Your task to perform on an android device: Show me the alarms in the clock app Image 0: 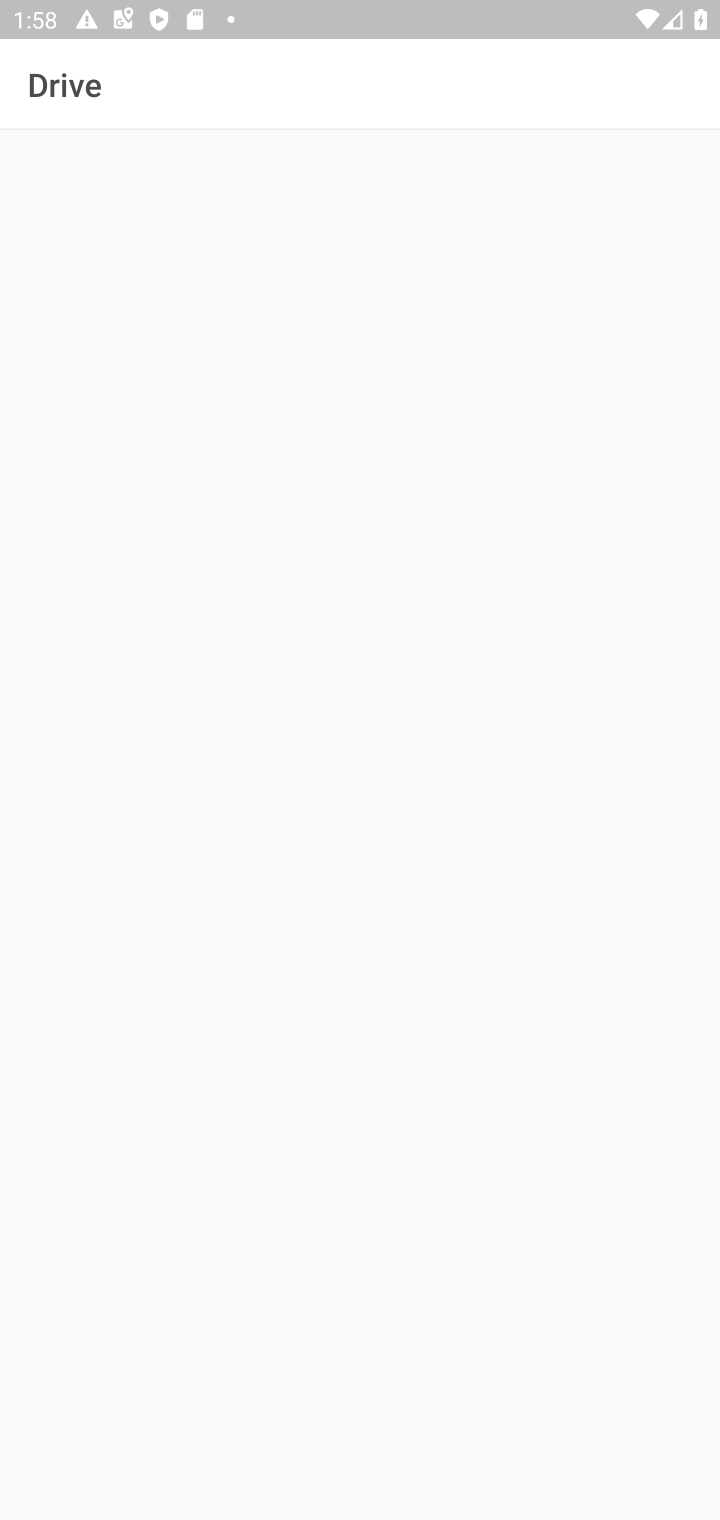
Step 0: press home button
Your task to perform on an android device: Show me the alarms in the clock app Image 1: 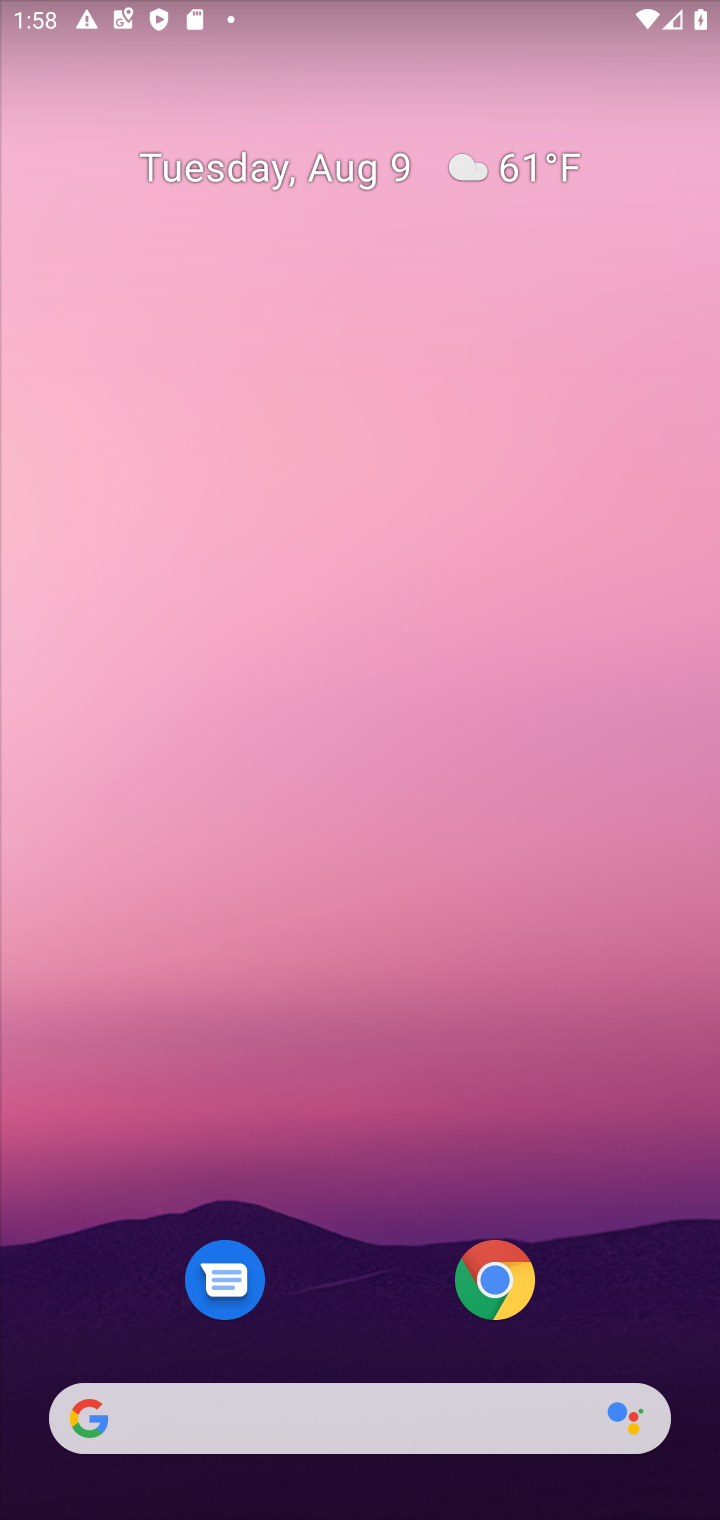
Step 1: drag from (333, 1388) to (526, 252)
Your task to perform on an android device: Show me the alarms in the clock app Image 2: 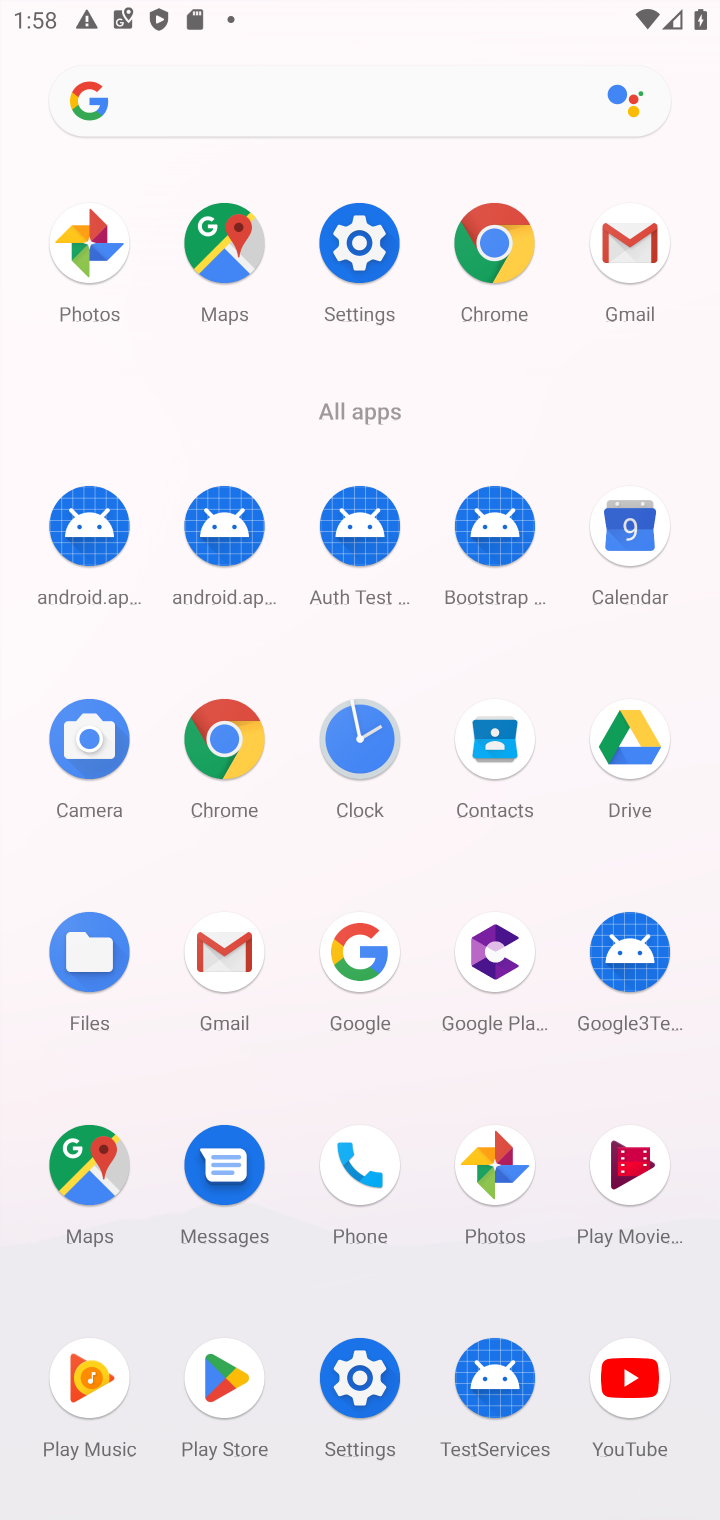
Step 2: click (358, 755)
Your task to perform on an android device: Show me the alarms in the clock app Image 3: 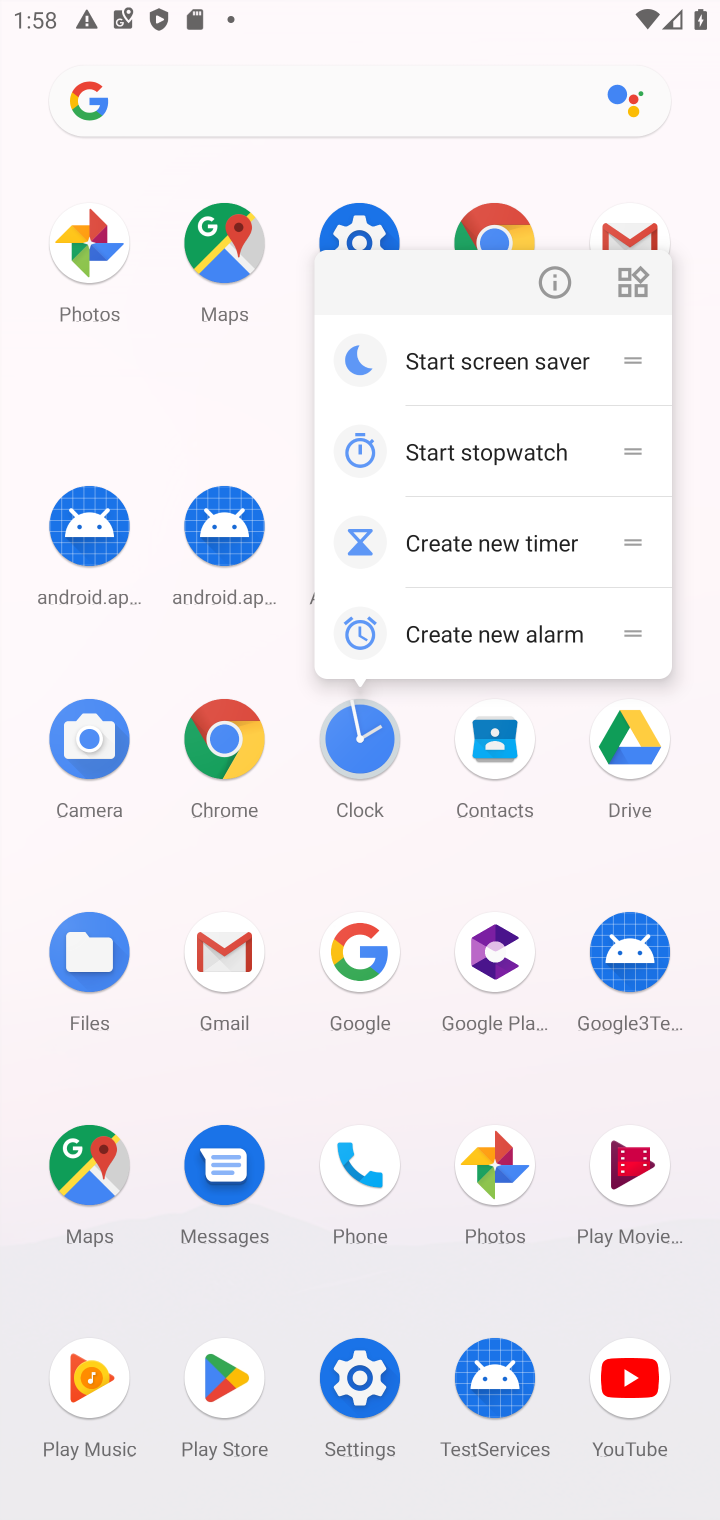
Step 3: click (356, 760)
Your task to perform on an android device: Show me the alarms in the clock app Image 4: 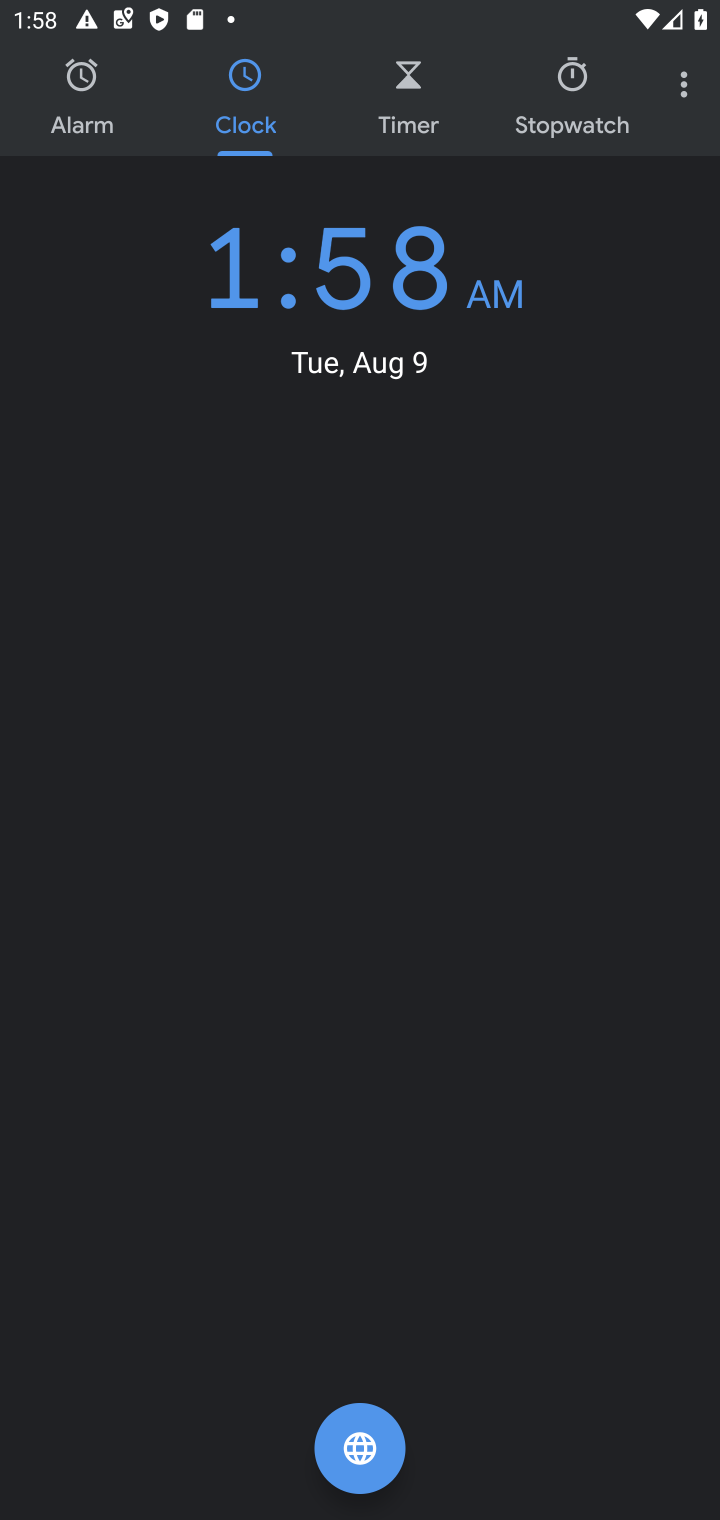
Step 4: click (81, 103)
Your task to perform on an android device: Show me the alarms in the clock app Image 5: 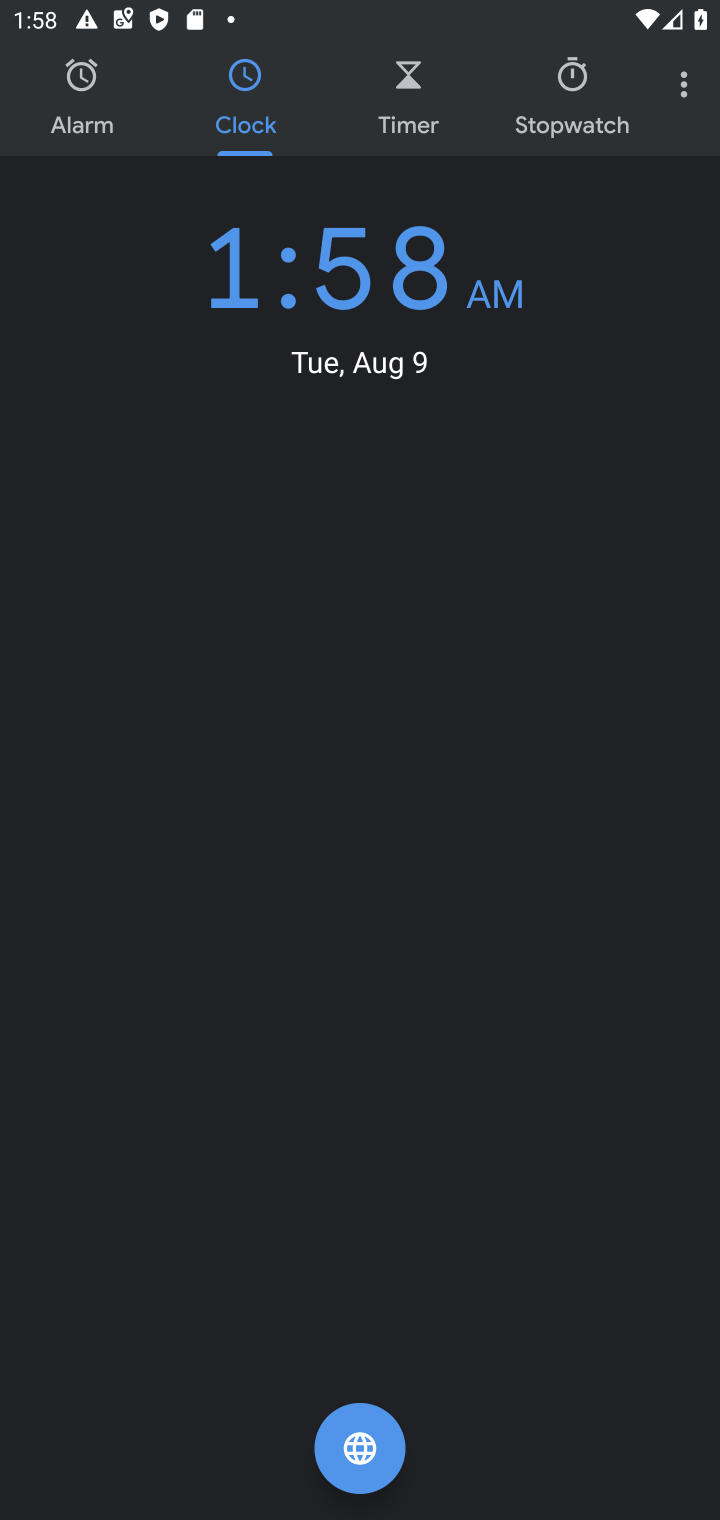
Step 5: click (77, 119)
Your task to perform on an android device: Show me the alarms in the clock app Image 6: 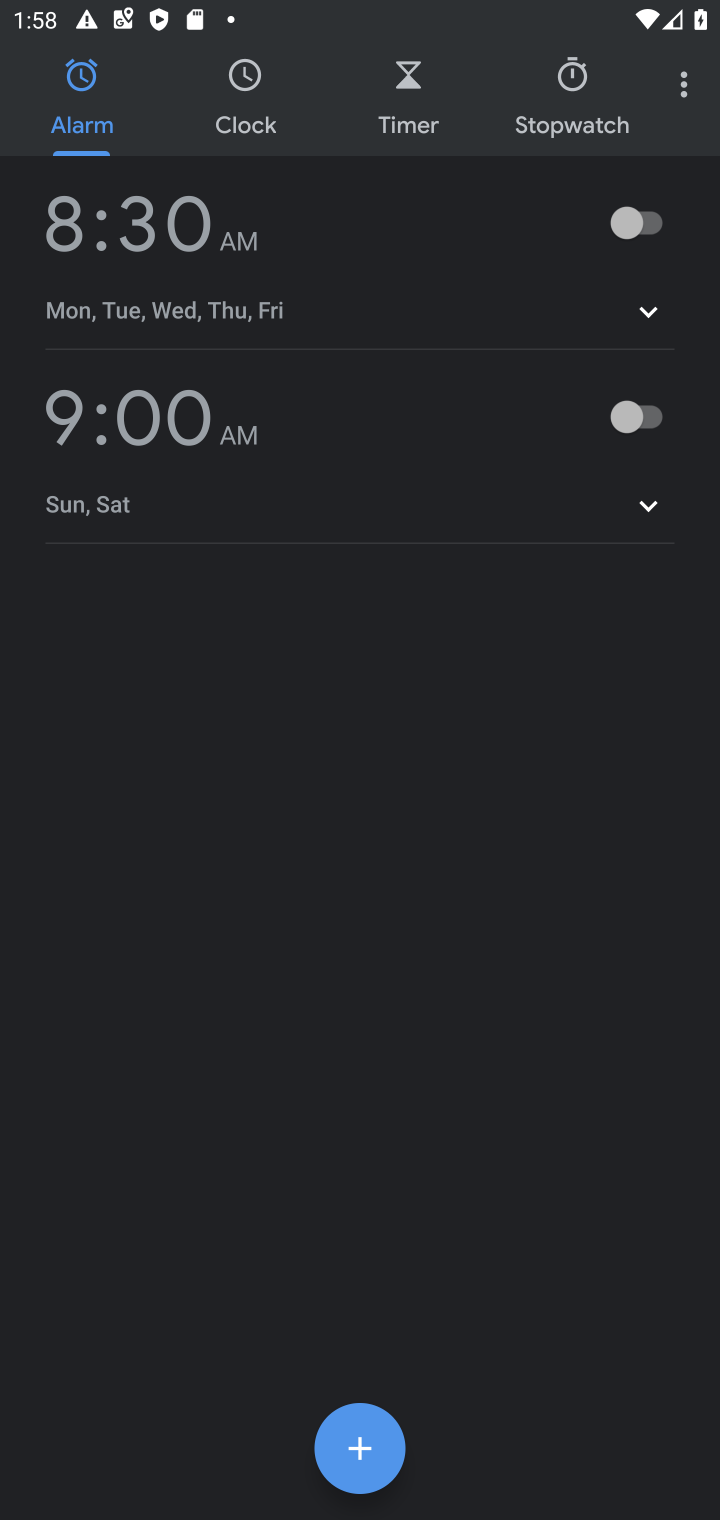
Step 6: task complete